Your task to perform on an android device: How much does a 3 bedroom apartment rent for in Atlanta? Image 0: 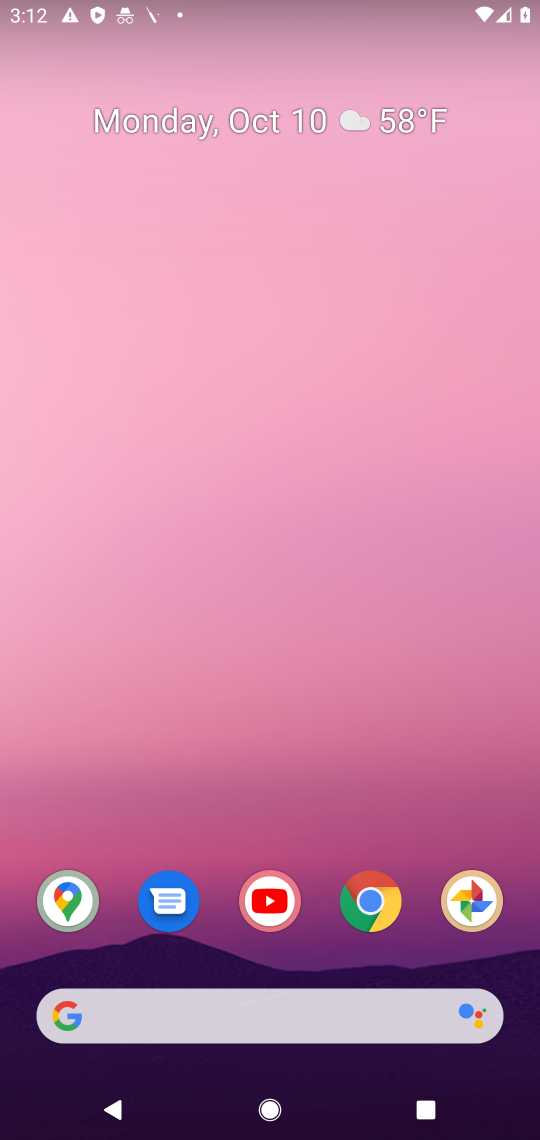
Step 0: drag from (274, 861) to (372, 279)
Your task to perform on an android device: How much does a 3 bedroom apartment rent for in Atlanta? Image 1: 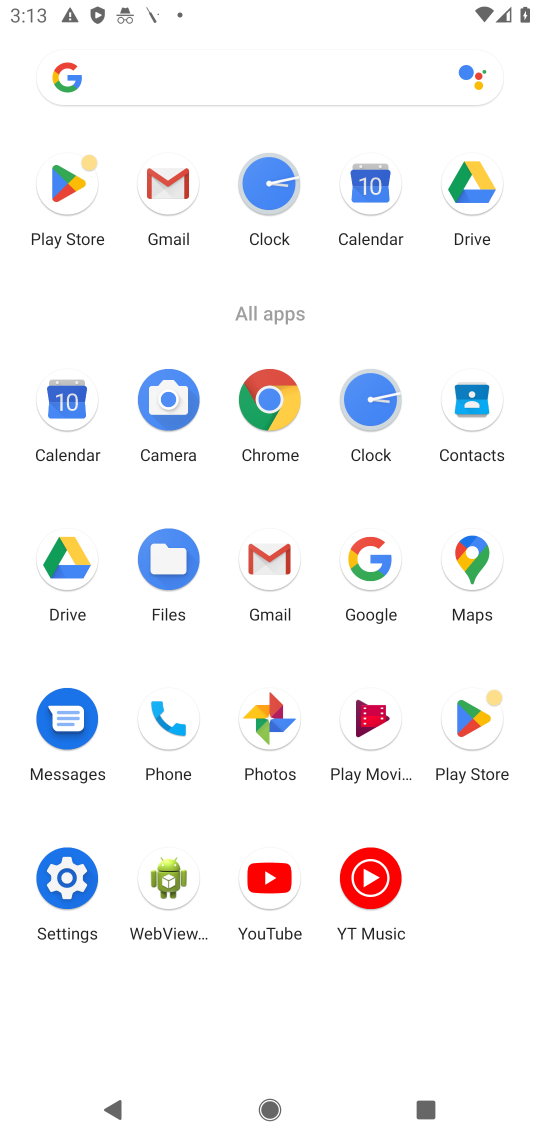
Step 1: click (376, 585)
Your task to perform on an android device: How much does a 3 bedroom apartment rent for in Atlanta? Image 2: 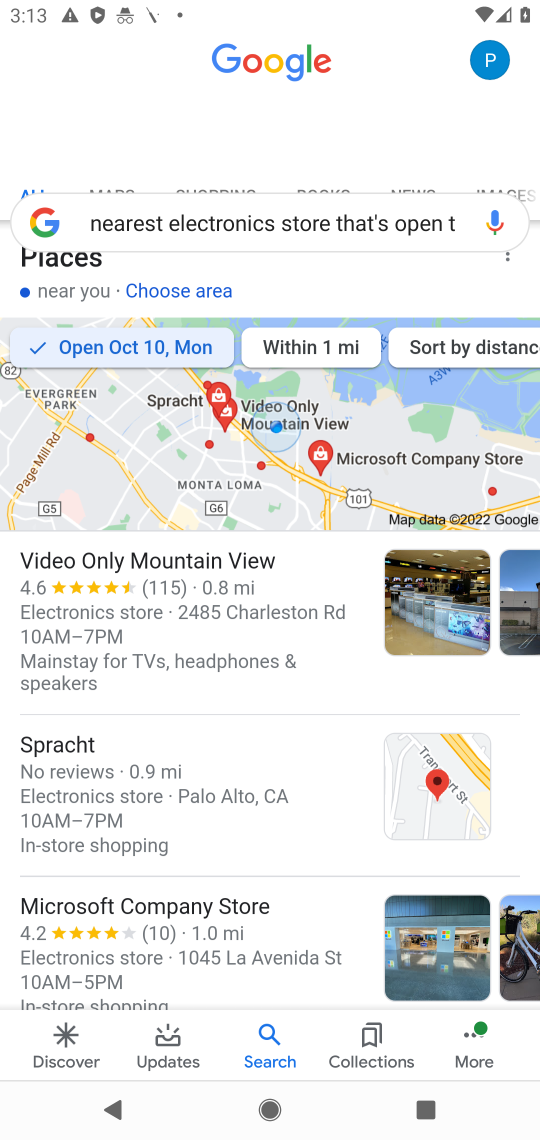
Step 2: click (305, 229)
Your task to perform on an android device: How much does a 3 bedroom apartment rent for in Atlanta? Image 3: 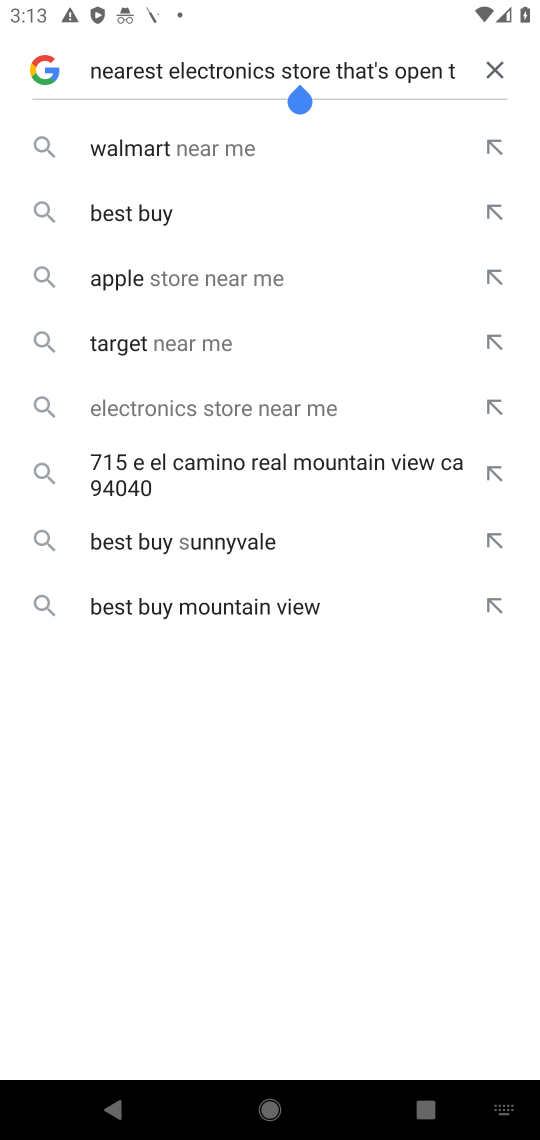
Step 3: click (490, 77)
Your task to perform on an android device: How much does a 3 bedroom apartment rent for in Atlanta? Image 4: 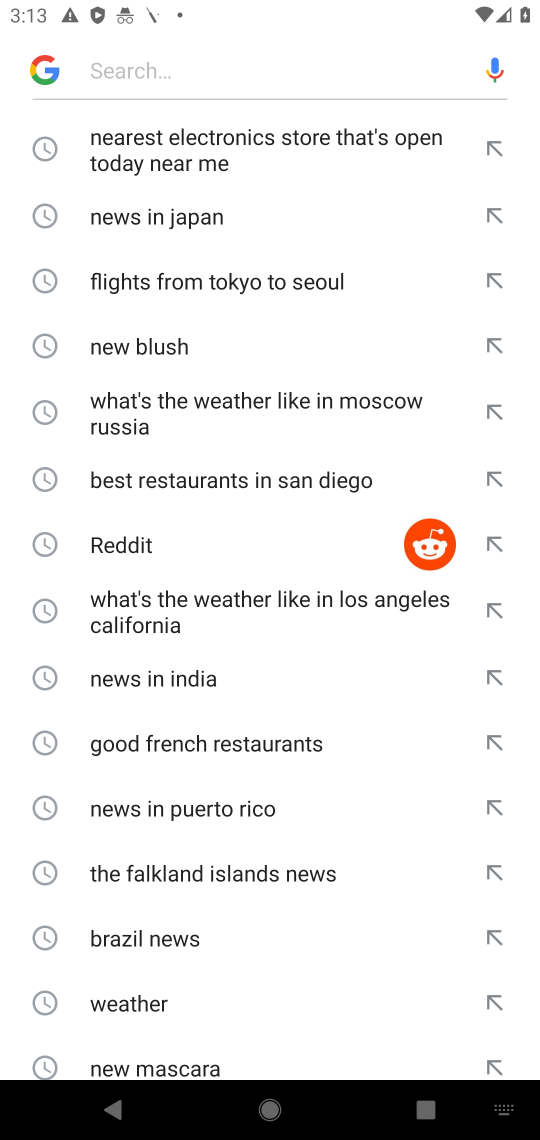
Step 4: type "3 bedroom apartment rent for in Atlanta"
Your task to perform on an android device: How much does a 3 bedroom apartment rent for in Atlanta? Image 5: 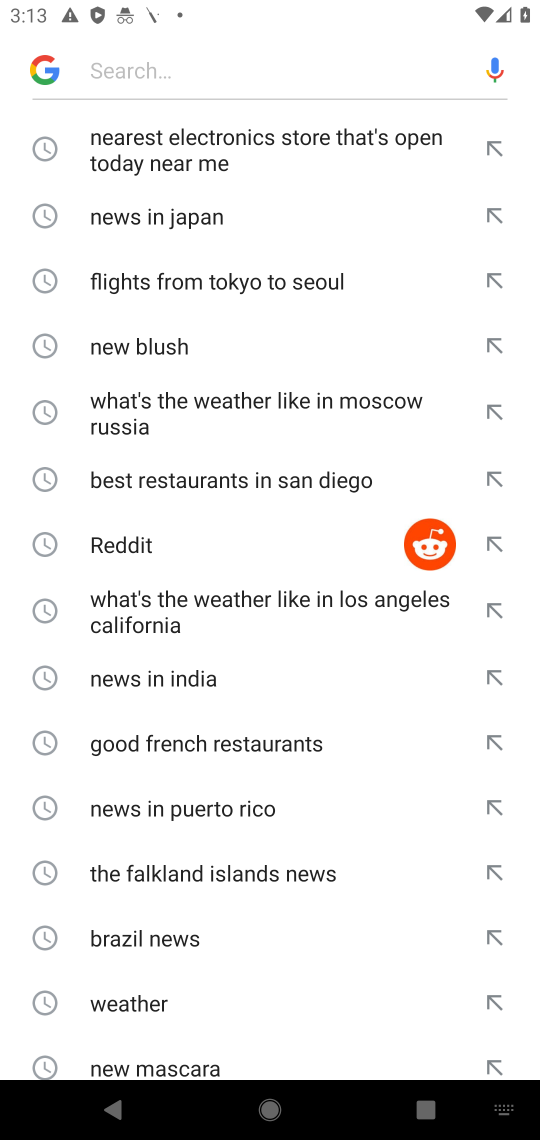
Step 5: click (308, 82)
Your task to perform on an android device: How much does a 3 bedroom apartment rent for in Atlanta? Image 6: 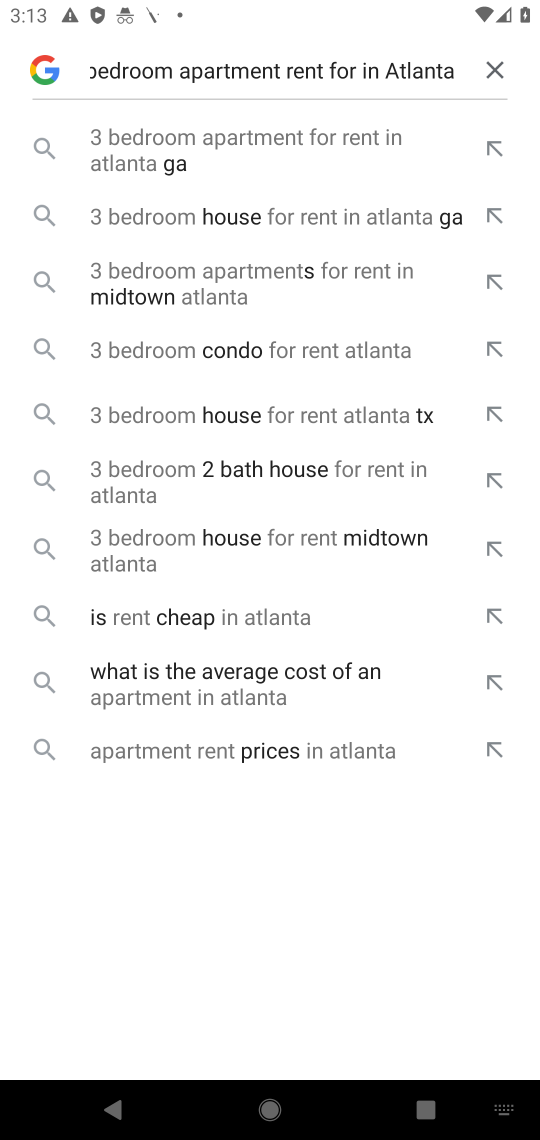
Step 6: click (410, 153)
Your task to perform on an android device: How much does a 3 bedroom apartment rent for in Atlanta? Image 7: 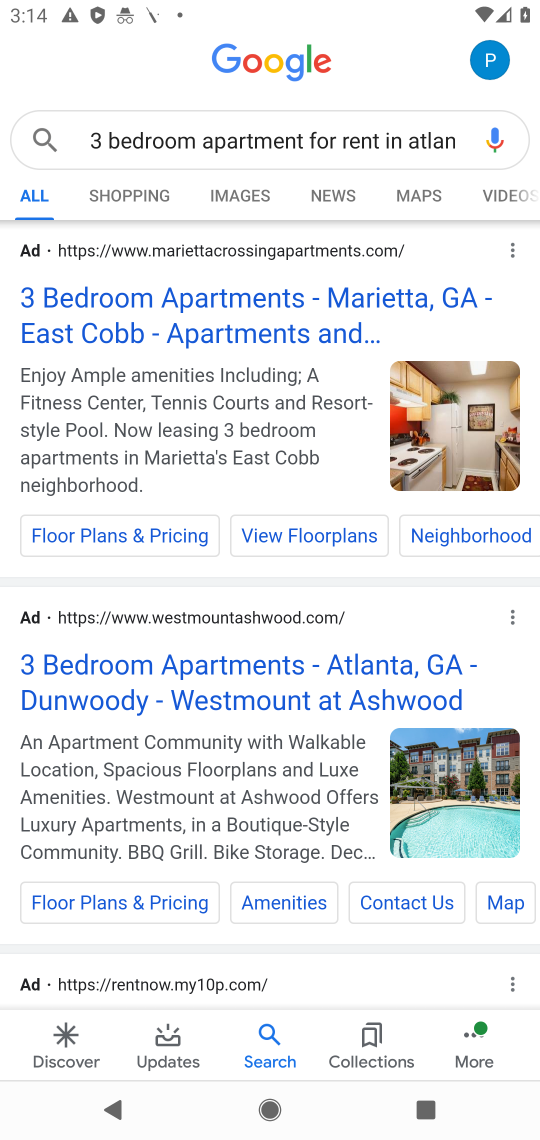
Step 7: click (144, 193)
Your task to perform on an android device: How much does a 3 bedroom apartment rent for in Atlanta? Image 8: 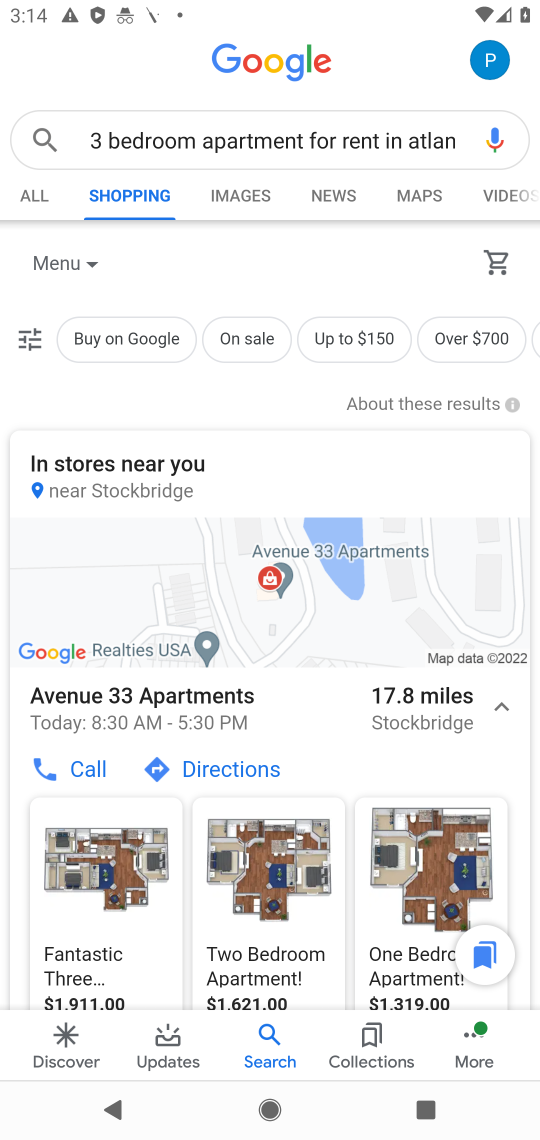
Step 8: task complete